Your task to perform on an android device: add a contact Image 0: 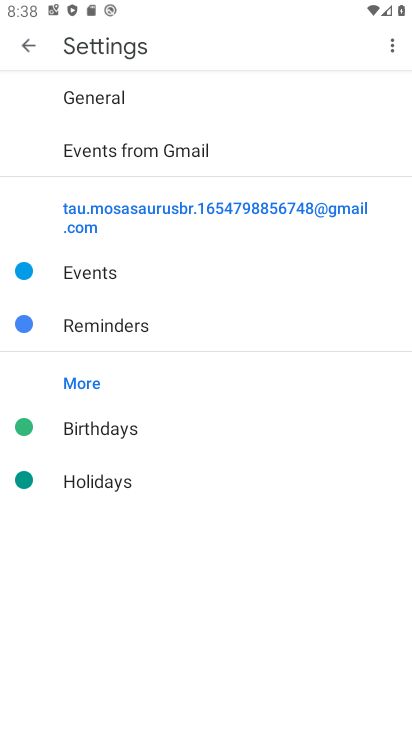
Step 0: press home button
Your task to perform on an android device: add a contact Image 1: 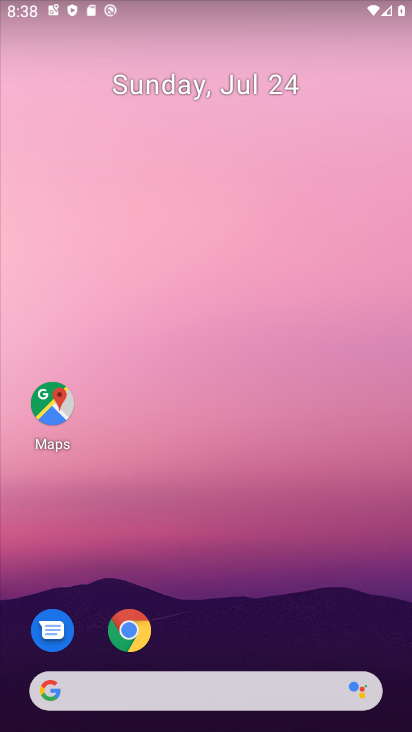
Step 1: drag from (206, 638) to (192, 160)
Your task to perform on an android device: add a contact Image 2: 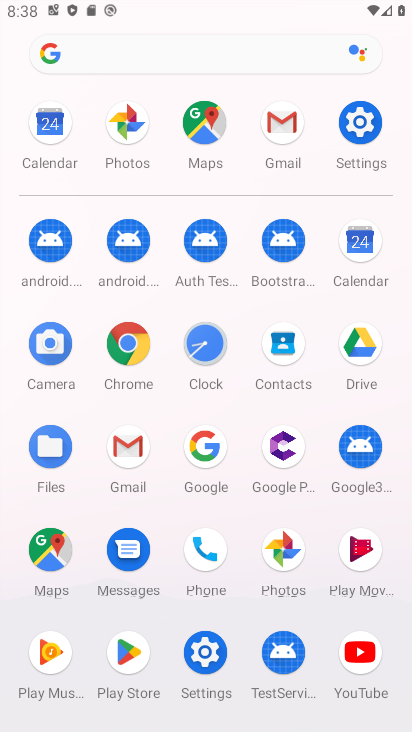
Step 2: click (281, 367)
Your task to perform on an android device: add a contact Image 3: 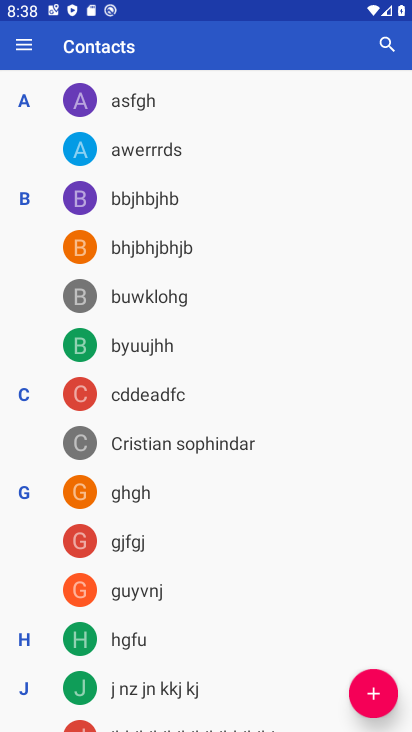
Step 3: click (369, 681)
Your task to perform on an android device: add a contact Image 4: 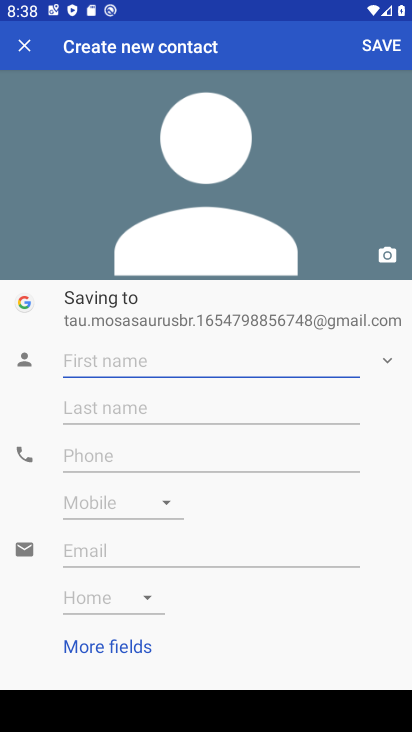
Step 4: type "vkjbjk"
Your task to perform on an android device: add a contact Image 5: 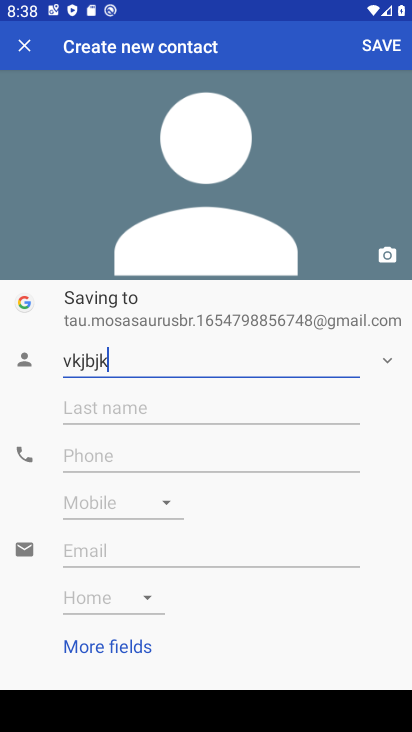
Step 5: click (257, 470)
Your task to perform on an android device: add a contact Image 6: 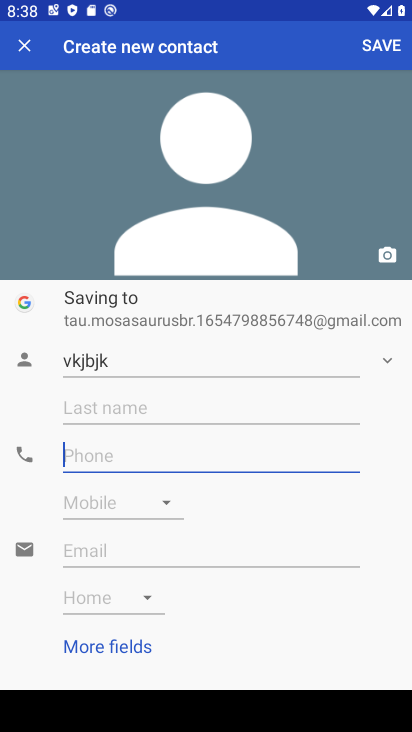
Step 6: type "7t655447456"
Your task to perform on an android device: add a contact Image 7: 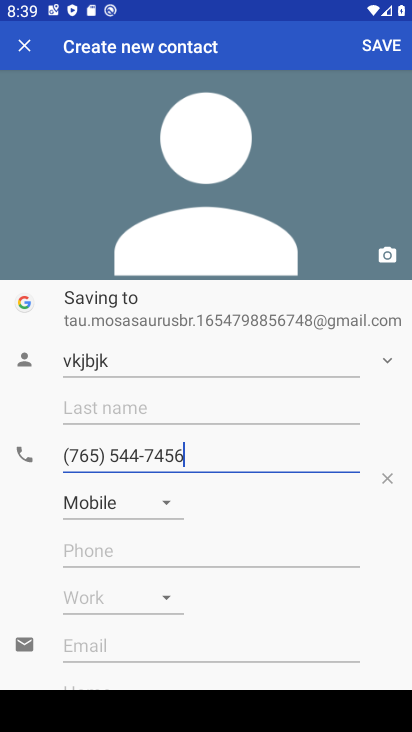
Step 7: click (370, 44)
Your task to perform on an android device: add a contact Image 8: 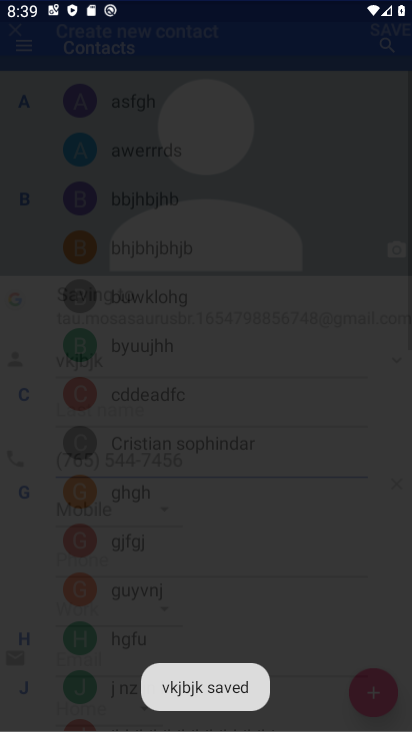
Step 8: task complete